Your task to perform on an android device: find which apps use the phone's location Image 0: 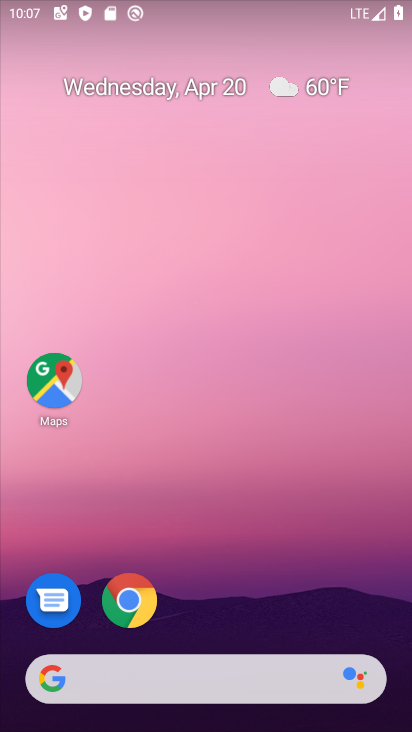
Step 0: drag from (192, 615) to (197, 106)
Your task to perform on an android device: find which apps use the phone's location Image 1: 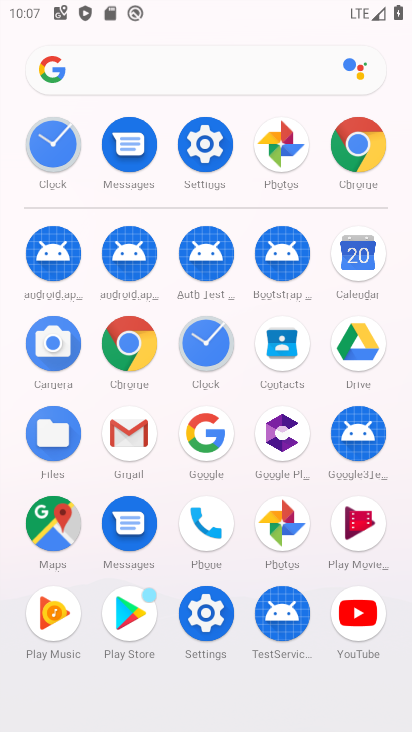
Step 1: click (204, 145)
Your task to perform on an android device: find which apps use the phone's location Image 2: 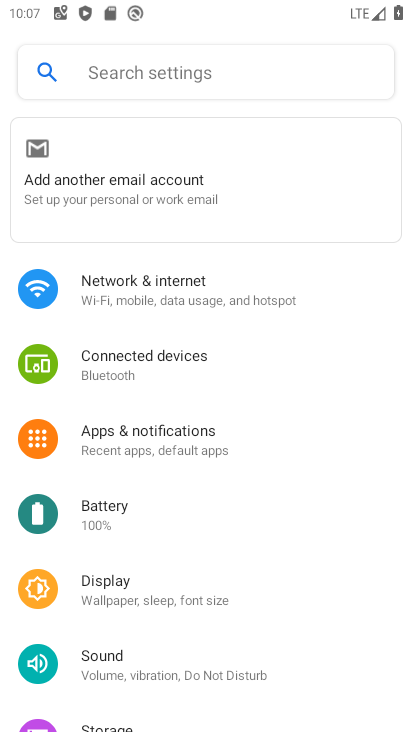
Step 2: drag from (125, 656) to (163, 208)
Your task to perform on an android device: find which apps use the phone's location Image 3: 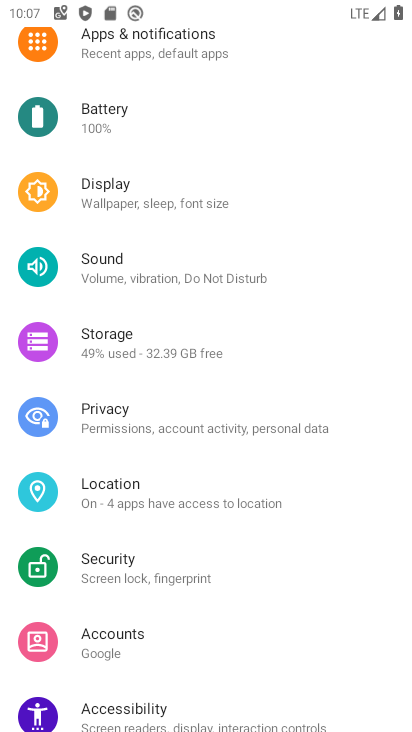
Step 3: click (139, 505)
Your task to perform on an android device: find which apps use the phone's location Image 4: 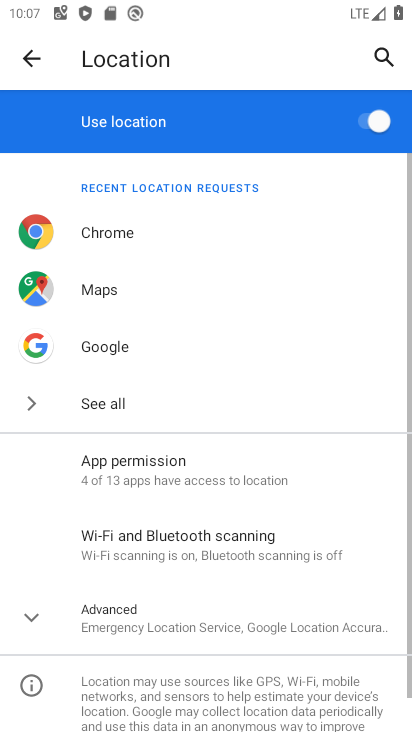
Step 4: click (120, 393)
Your task to perform on an android device: find which apps use the phone's location Image 5: 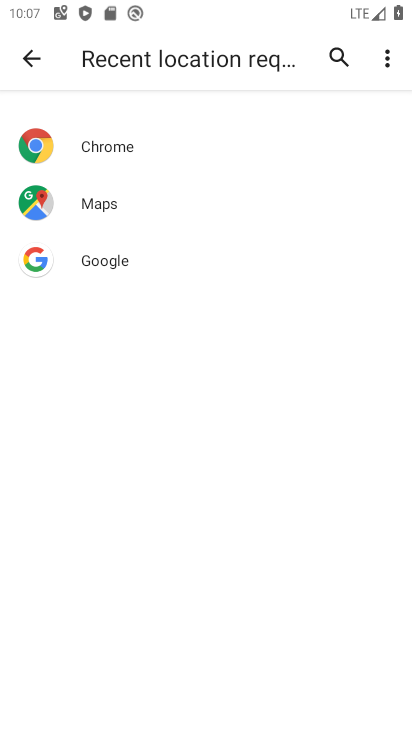
Step 5: task complete